Your task to perform on an android device: manage bookmarks in the chrome app Image 0: 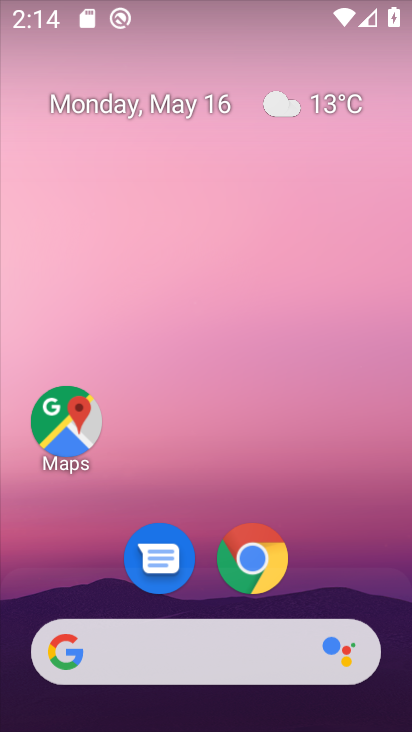
Step 0: click (235, 561)
Your task to perform on an android device: manage bookmarks in the chrome app Image 1: 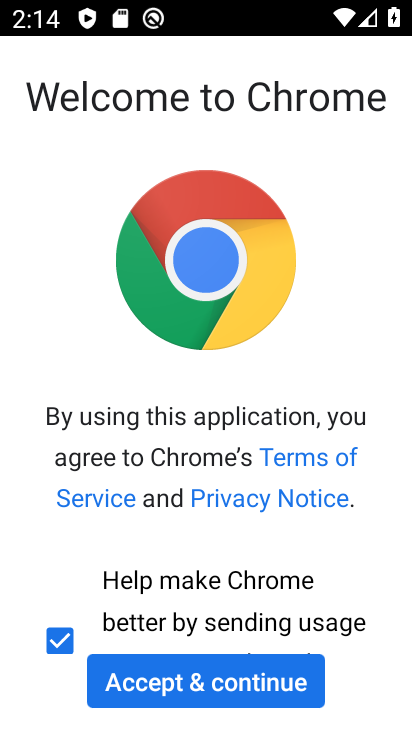
Step 1: click (241, 667)
Your task to perform on an android device: manage bookmarks in the chrome app Image 2: 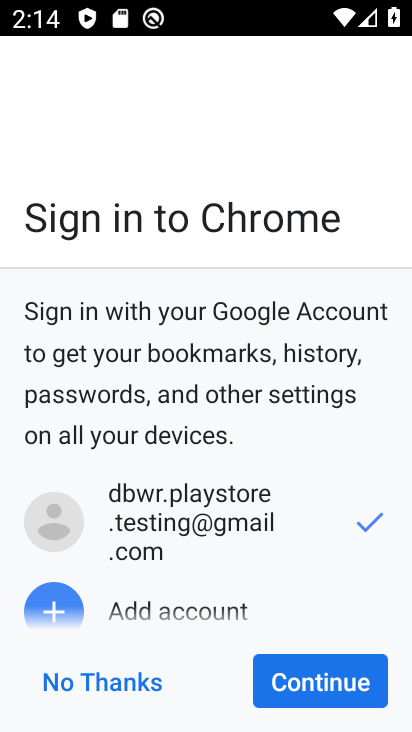
Step 2: click (310, 678)
Your task to perform on an android device: manage bookmarks in the chrome app Image 3: 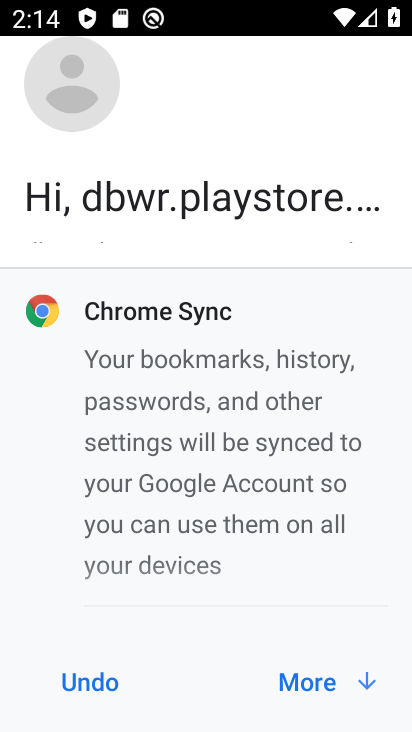
Step 3: click (346, 687)
Your task to perform on an android device: manage bookmarks in the chrome app Image 4: 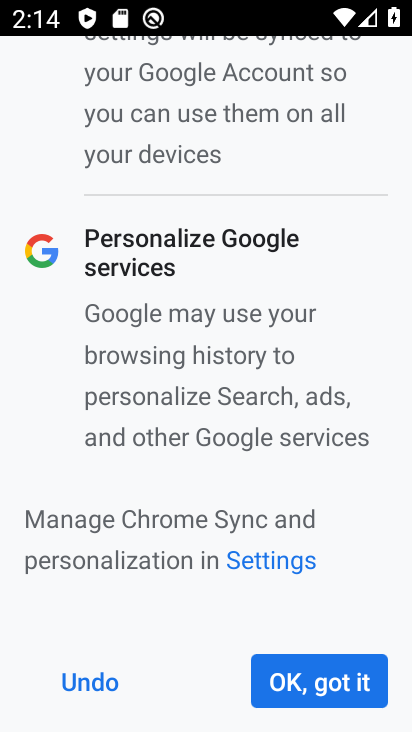
Step 4: click (335, 682)
Your task to perform on an android device: manage bookmarks in the chrome app Image 5: 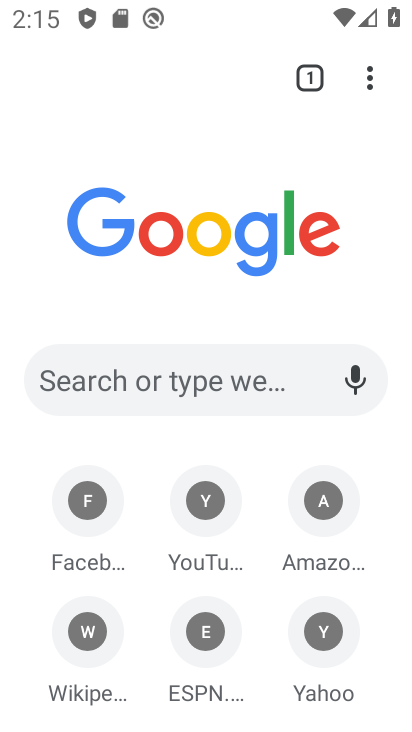
Step 5: click (377, 82)
Your task to perform on an android device: manage bookmarks in the chrome app Image 6: 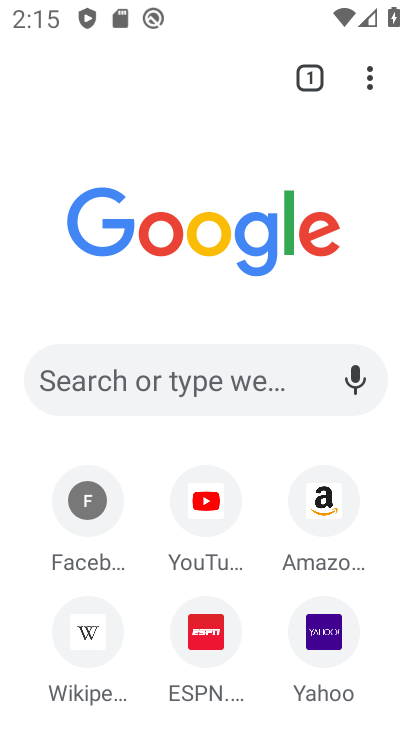
Step 6: drag from (126, 294) to (127, 175)
Your task to perform on an android device: manage bookmarks in the chrome app Image 7: 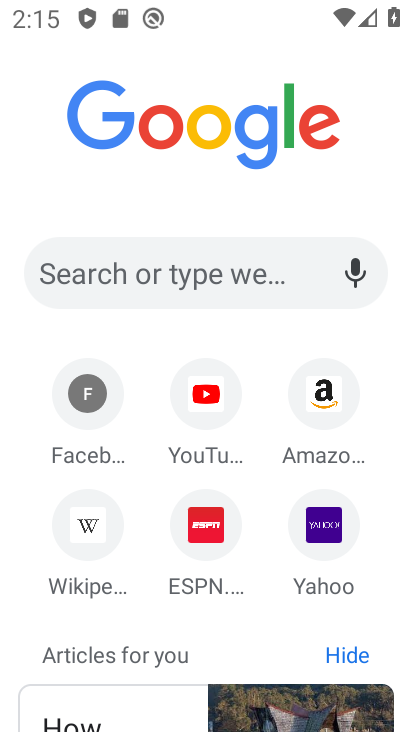
Step 7: drag from (363, 104) to (384, 367)
Your task to perform on an android device: manage bookmarks in the chrome app Image 8: 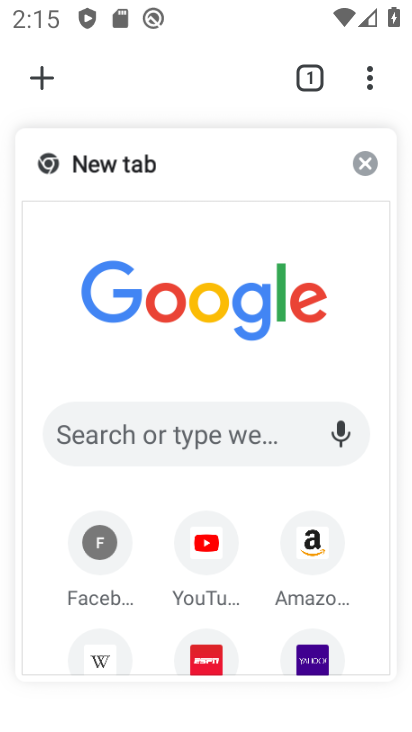
Step 8: click (371, 78)
Your task to perform on an android device: manage bookmarks in the chrome app Image 9: 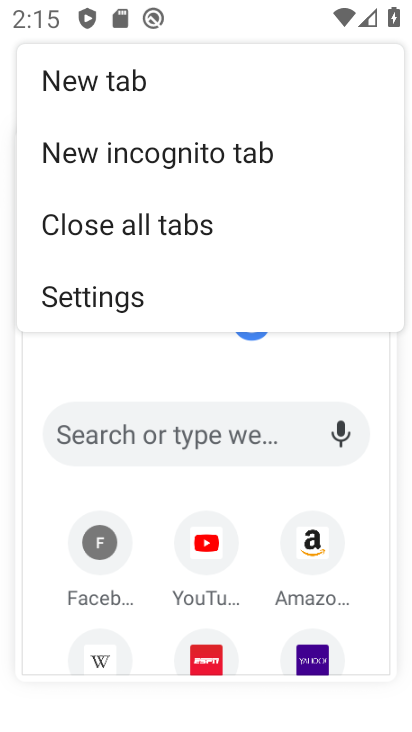
Step 9: click (146, 276)
Your task to perform on an android device: manage bookmarks in the chrome app Image 10: 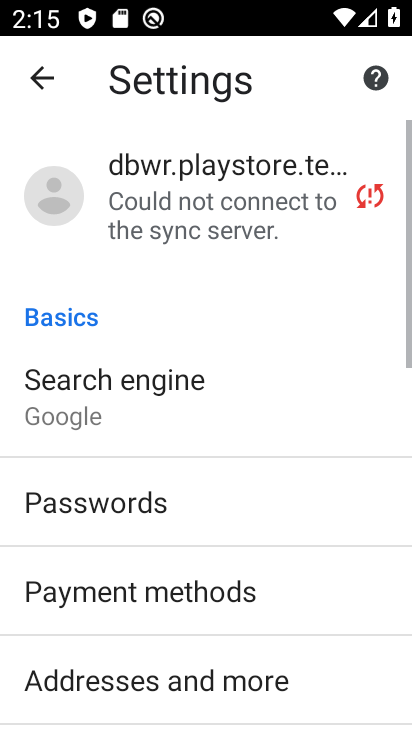
Step 10: task complete